Your task to perform on an android device: change the upload size in google photos Image 0: 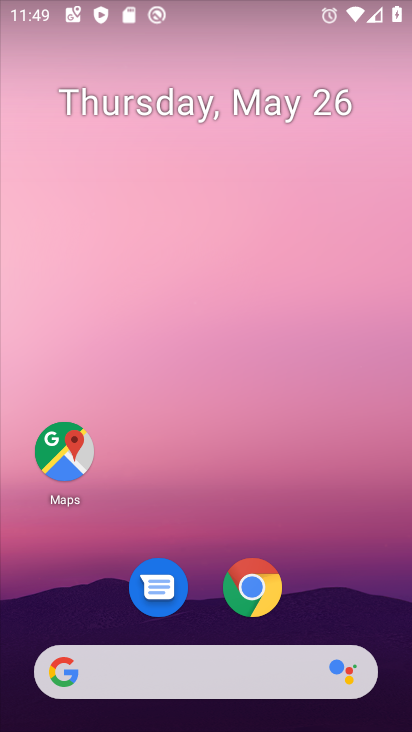
Step 0: drag from (217, 636) to (338, 32)
Your task to perform on an android device: change the upload size in google photos Image 1: 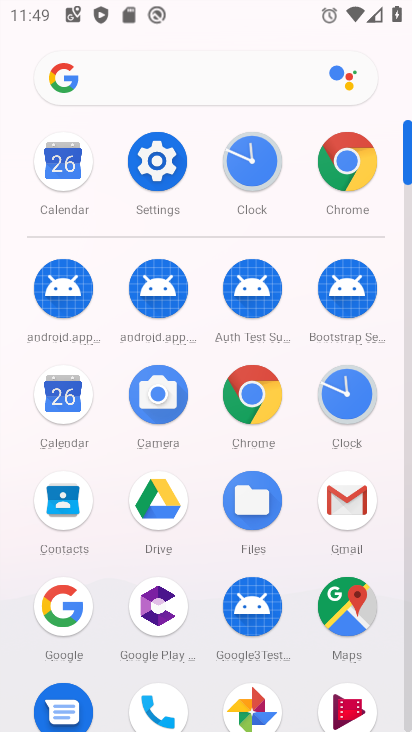
Step 1: click (239, 697)
Your task to perform on an android device: change the upload size in google photos Image 2: 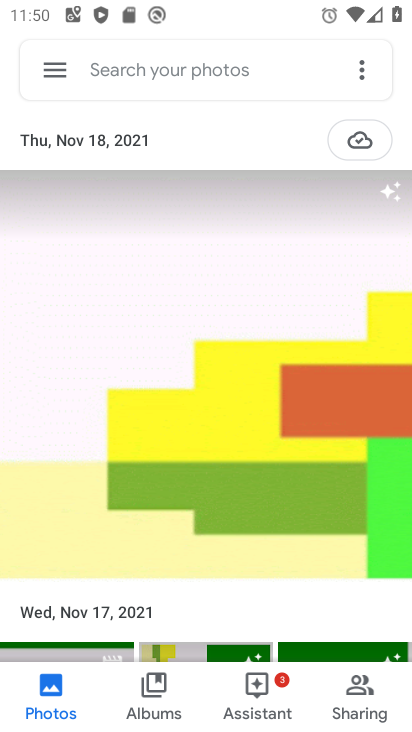
Step 2: click (46, 73)
Your task to perform on an android device: change the upload size in google photos Image 3: 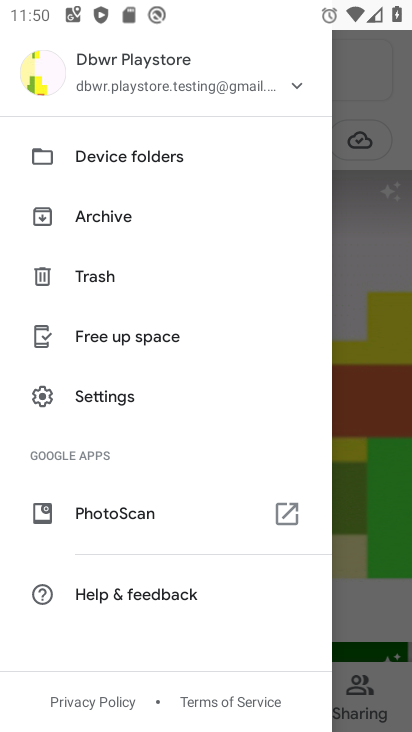
Step 3: click (97, 404)
Your task to perform on an android device: change the upload size in google photos Image 4: 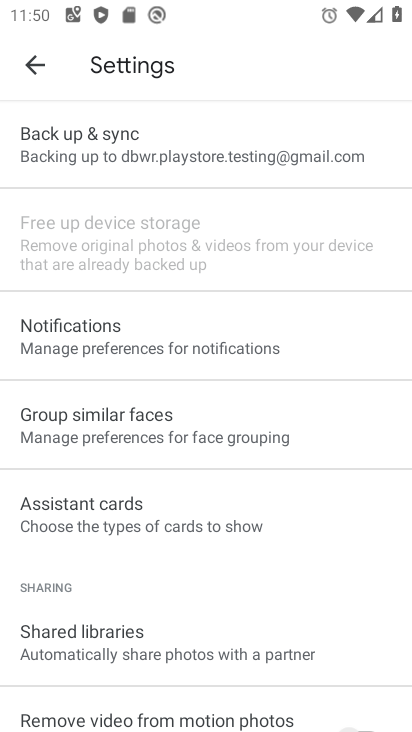
Step 4: click (160, 138)
Your task to perform on an android device: change the upload size in google photos Image 5: 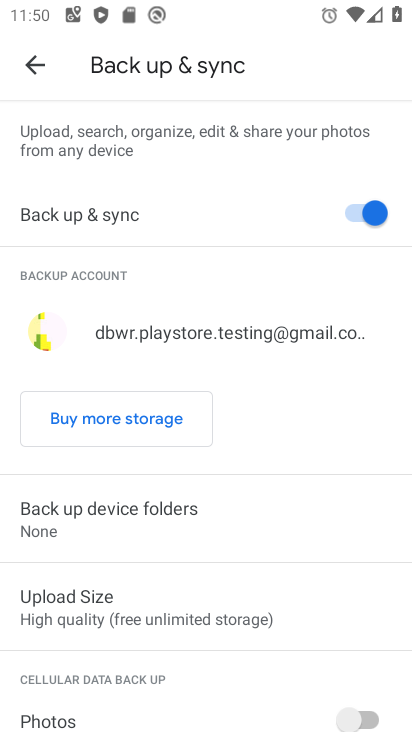
Step 5: click (149, 591)
Your task to perform on an android device: change the upload size in google photos Image 6: 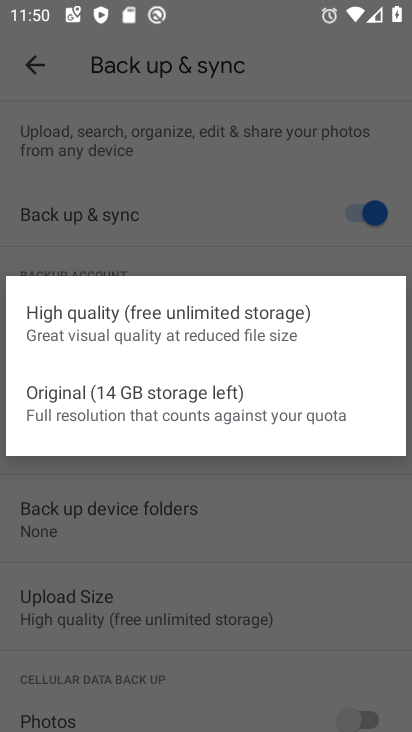
Step 6: task complete